Your task to perform on an android device: toggle show notifications on the lock screen Image 0: 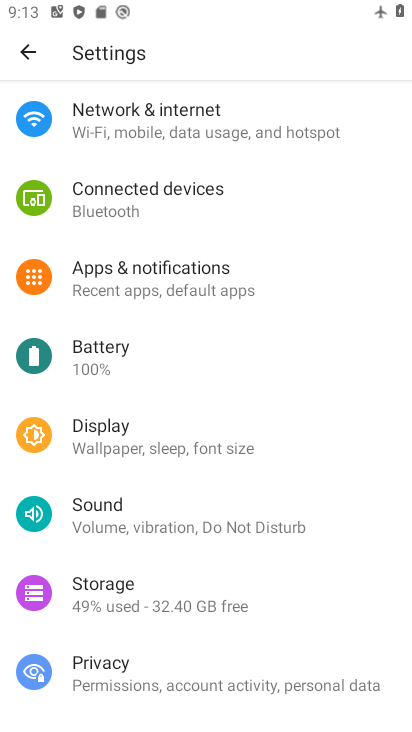
Step 0: click (117, 272)
Your task to perform on an android device: toggle show notifications on the lock screen Image 1: 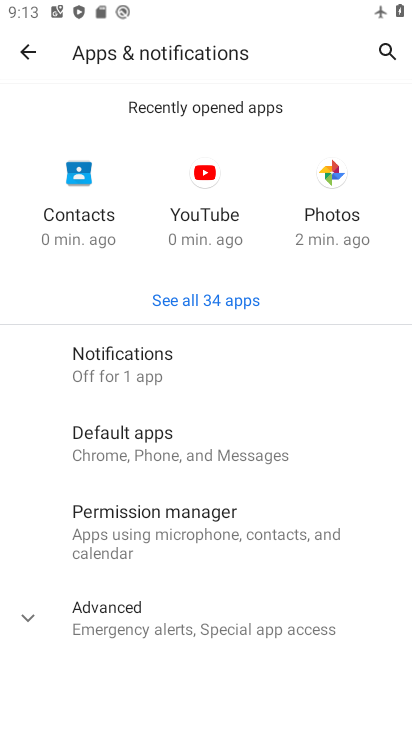
Step 1: click (122, 347)
Your task to perform on an android device: toggle show notifications on the lock screen Image 2: 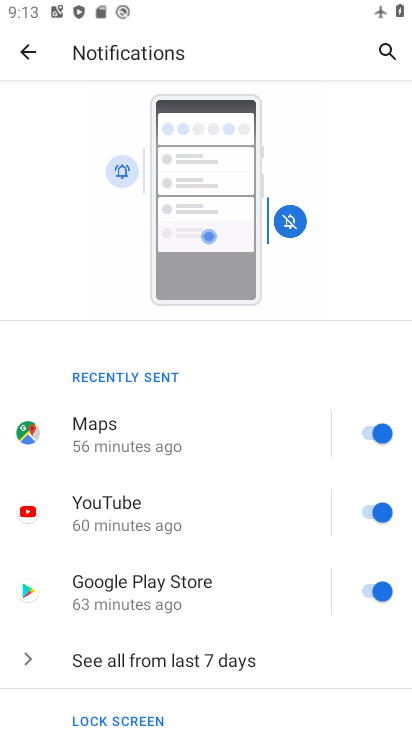
Step 2: drag from (291, 696) to (266, 125)
Your task to perform on an android device: toggle show notifications on the lock screen Image 3: 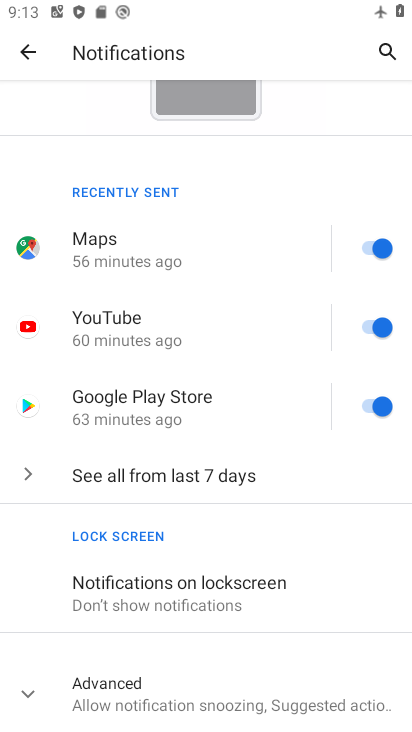
Step 3: click (149, 579)
Your task to perform on an android device: toggle show notifications on the lock screen Image 4: 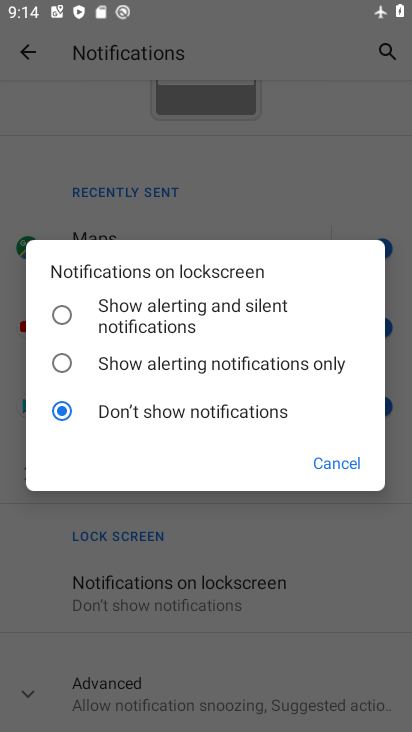
Step 4: click (67, 315)
Your task to perform on an android device: toggle show notifications on the lock screen Image 5: 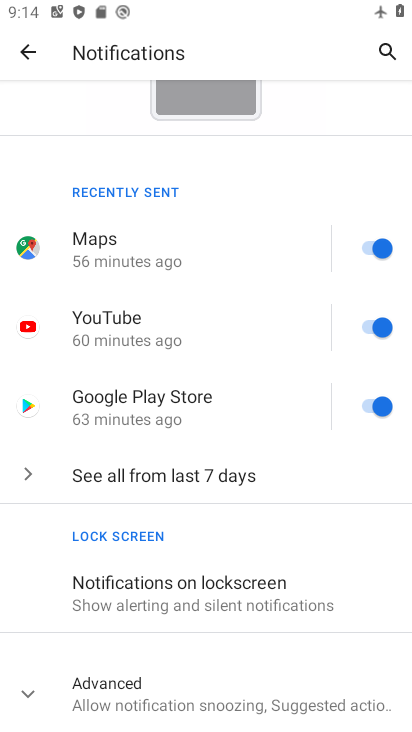
Step 5: task complete